Your task to perform on an android device: turn on sleep mode Image 0: 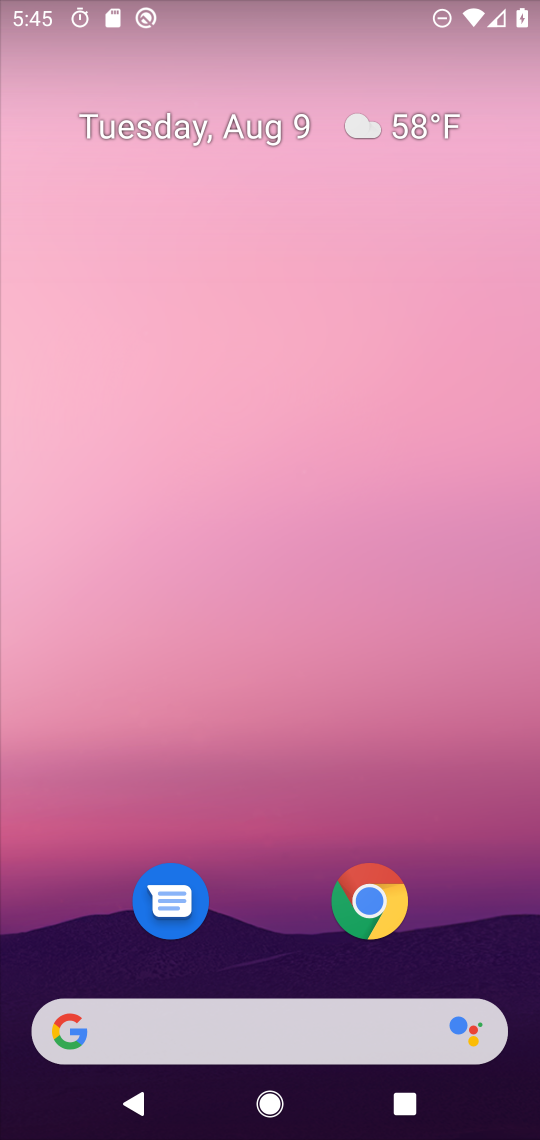
Step 0: drag from (294, 929) to (292, 40)
Your task to perform on an android device: turn on sleep mode Image 1: 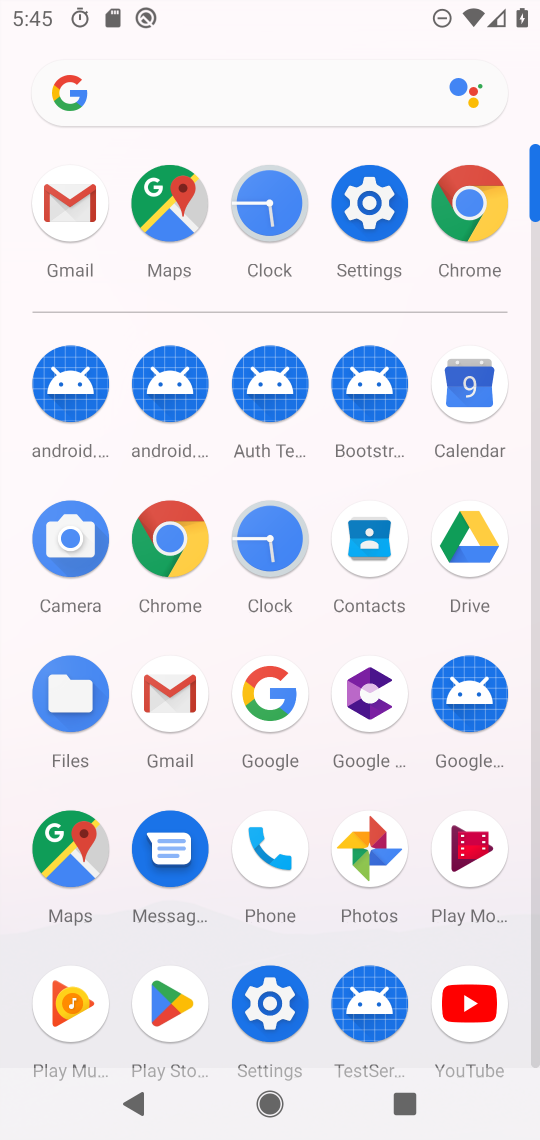
Step 1: click (284, 1006)
Your task to perform on an android device: turn on sleep mode Image 2: 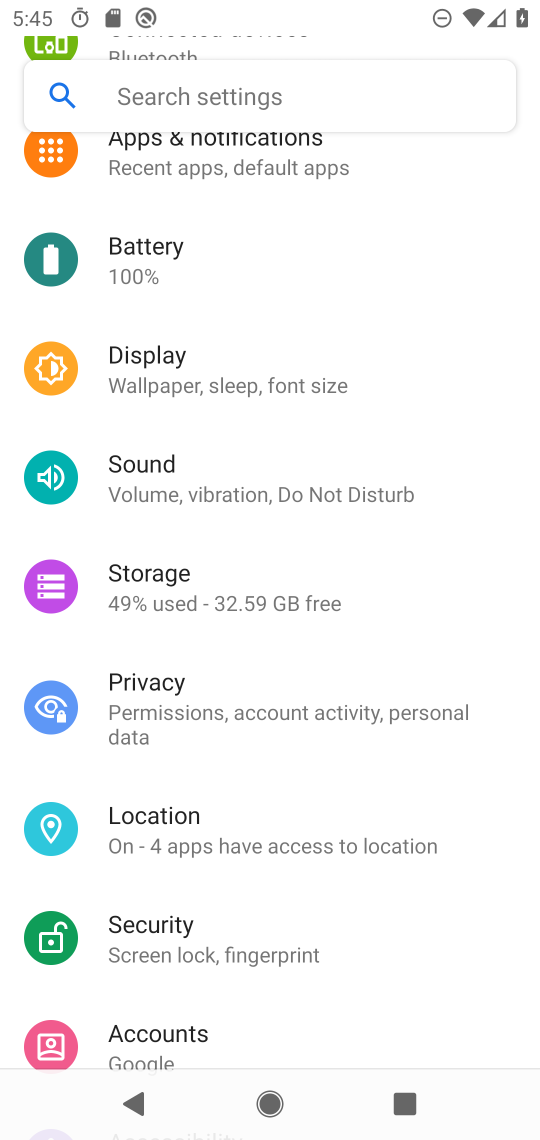
Step 2: drag from (231, 282) to (210, 668)
Your task to perform on an android device: turn on sleep mode Image 3: 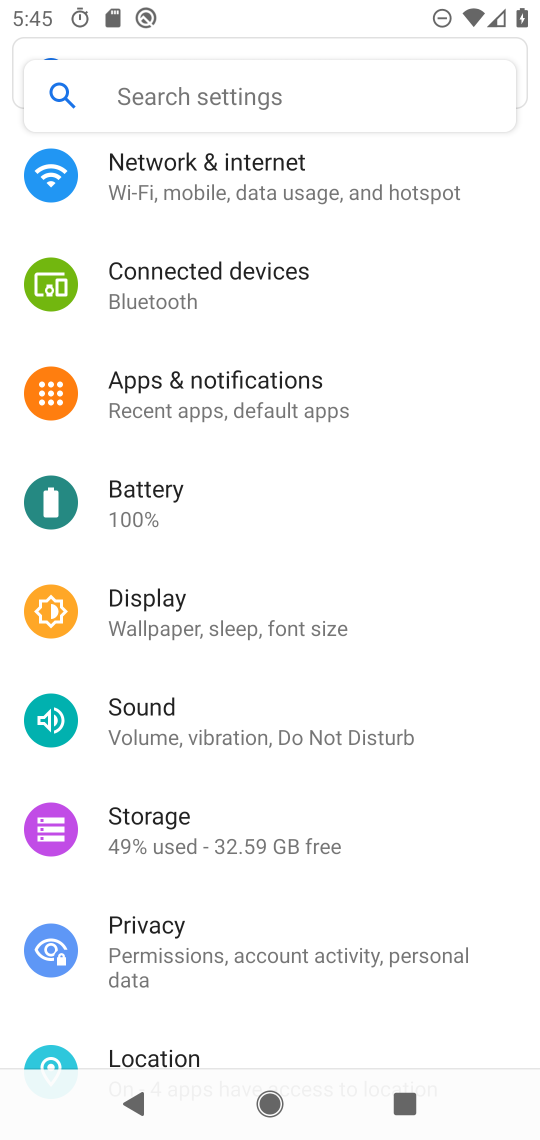
Step 3: drag from (256, 333) to (228, 674)
Your task to perform on an android device: turn on sleep mode Image 4: 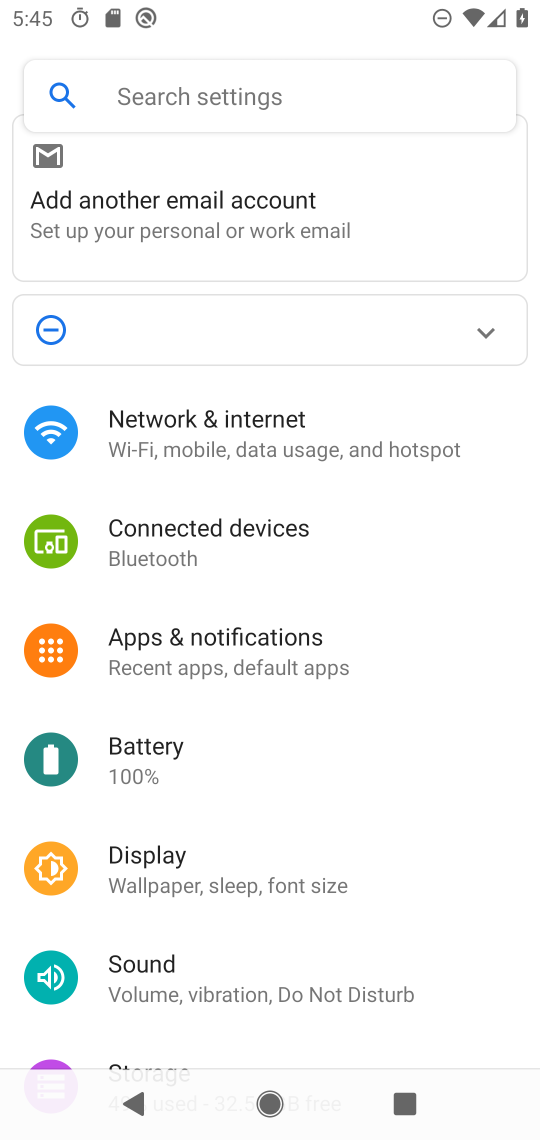
Step 4: click (149, 858)
Your task to perform on an android device: turn on sleep mode Image 5: 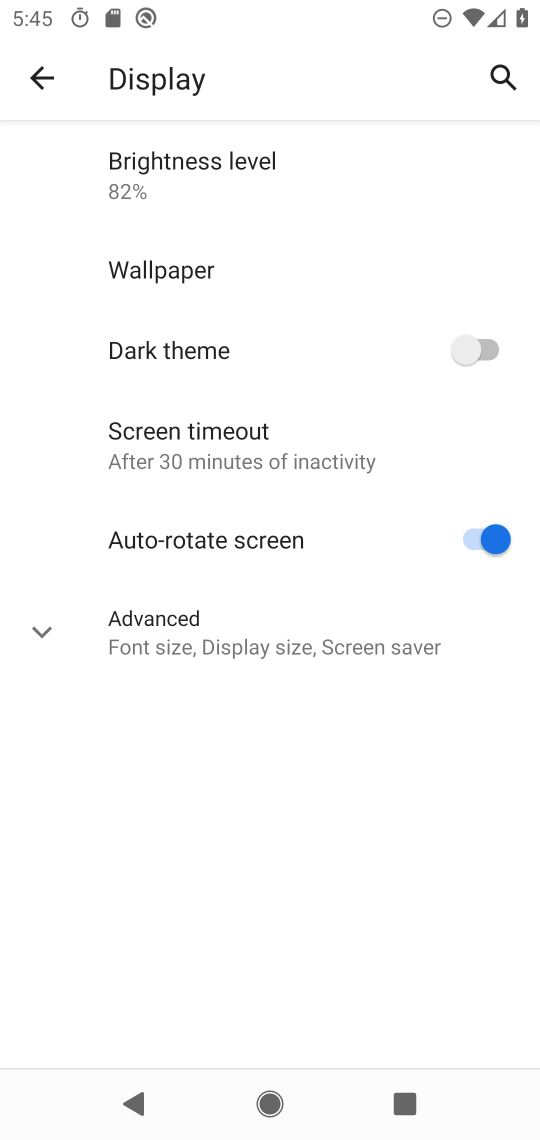
Step 5: task complete